Your task to perform on an android device: What's the weather? Image 0: 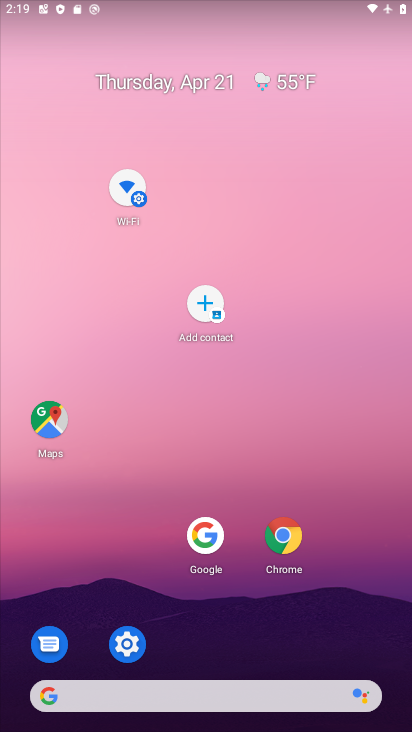
Step 0: drag from (216, 403) to (187, 61)
Your task to perform on an android device: What's the weather? Image 1: 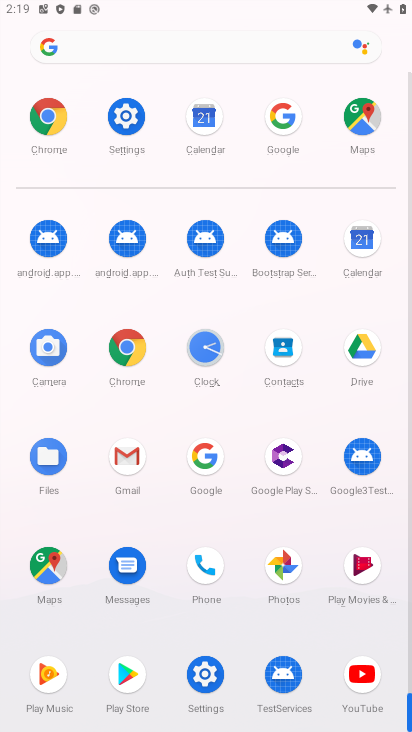
Step 1: press home button
Your task to perform on an android device: What's the weather? Image 2: 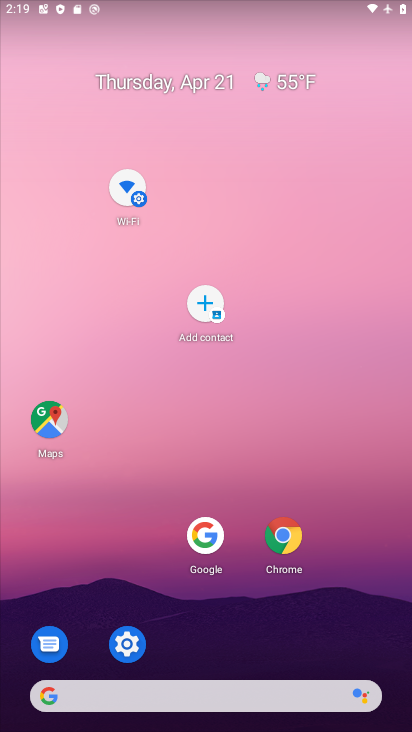
Step 2: drag from (1, 248) to (306, 377)
Your task to perform on an android device: What's the weather? Image 3: 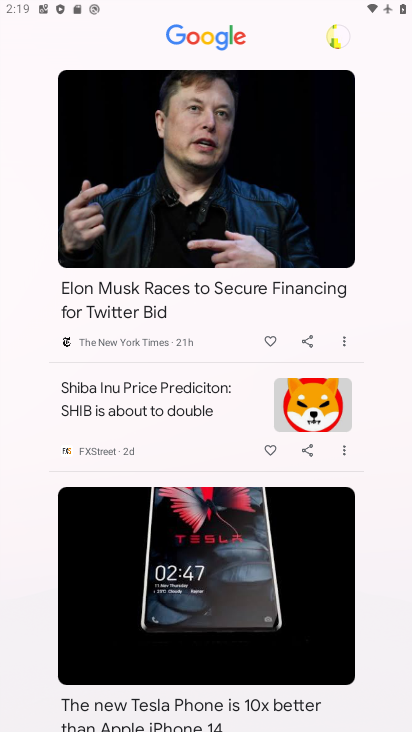
Step 3: drag from (251, 131) to (215, 558)
Your task to perform on an android device: What's the weather? Image 4: 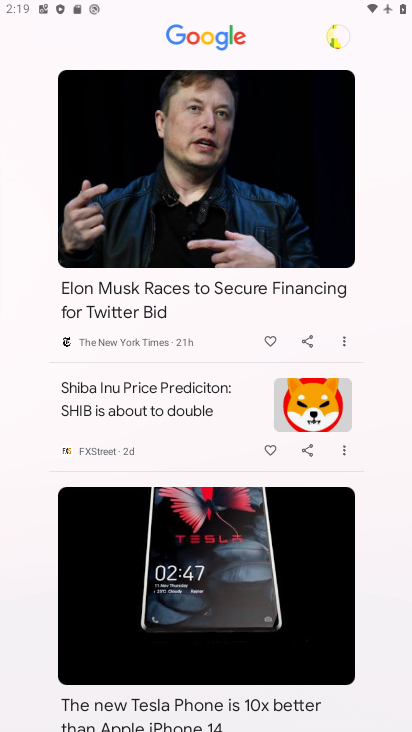
Step 4: drag from (153, 386) to (146, 492)
Your task to perform on an android device: What's the weather? Image 5: 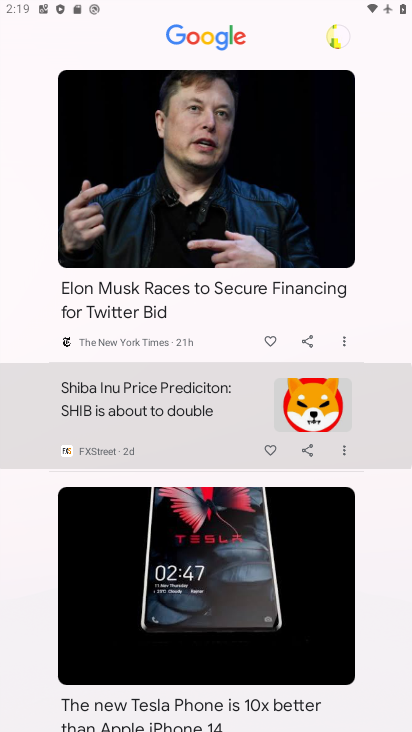
Step 5: drag from (166, 351) to (167, 504)
Your task to perform on an android device: What's the weather? Image 6: 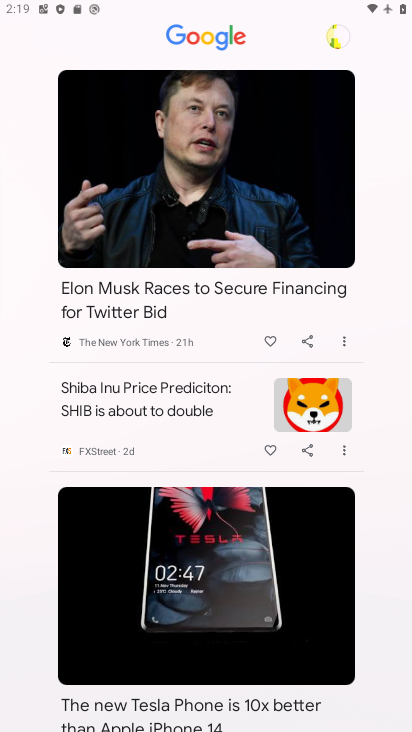
Step 6: drag from (169, 198) to (183, 584)
Your task to perform on an android device: What's the weather? Image 7: 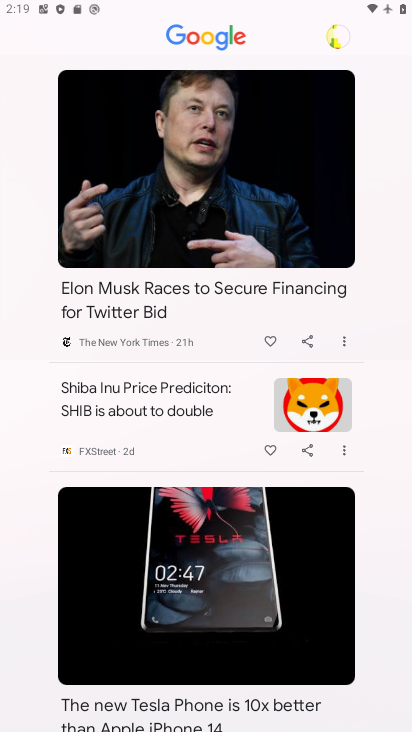
Step 7: drag from (153, 231) to (259, 608)
Your task to perform on an android device: What's the weather? Image 8: 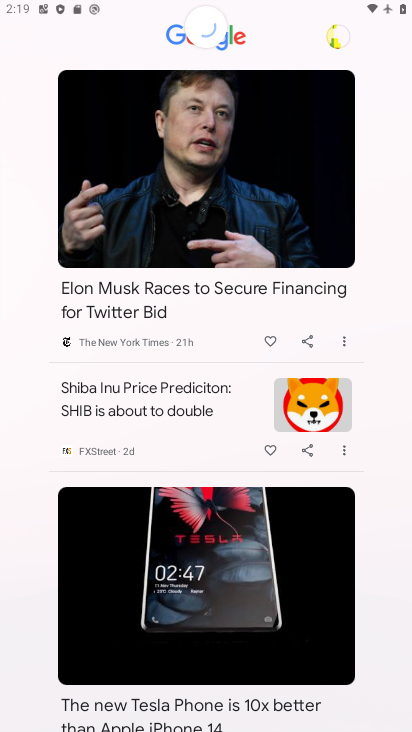
Step 8: drag from (253, 242) to (201, 670)
Your task to perform on an android device: What's the weather? Image 9: 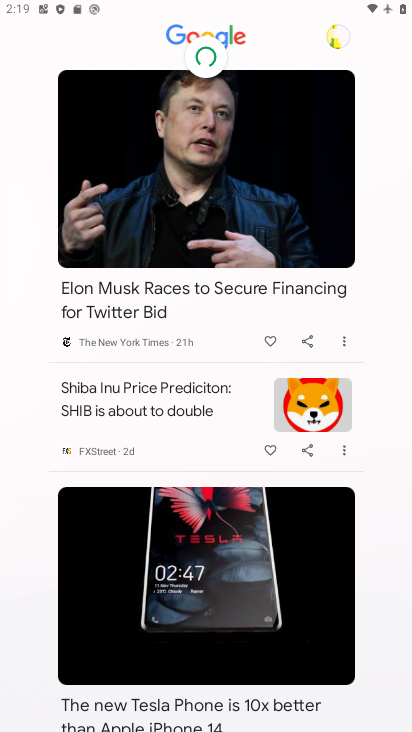
Step 9: drag from (124, 228) to (279, 522)
Your task to perform on an android device: What's the weather? Image 10: 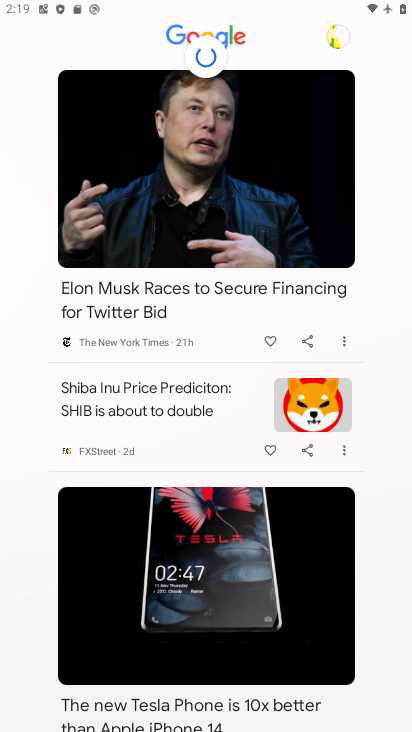
Step 10: click (260, 517)
Your task to perform on an android device: What's the weather? Image 11: 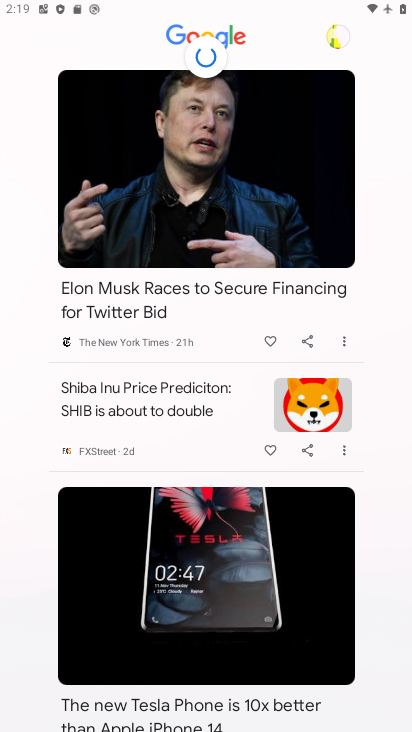
Step 11: click (292, 729)
Your task to perform on an android device: What's the weather? Image 12: 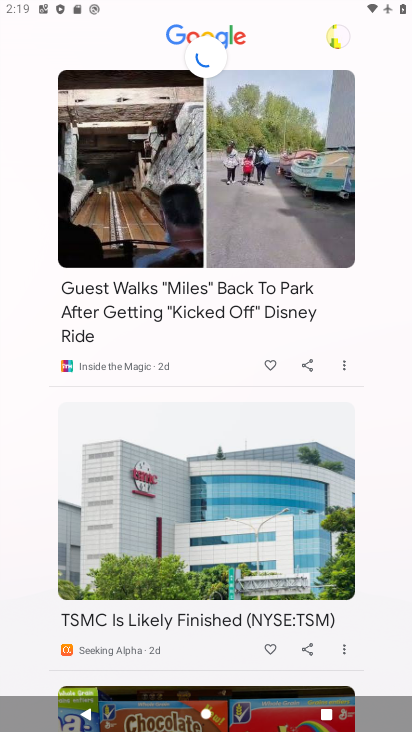
Step 12: drag from (249, 489) to (344, 581)
Your task to perform on an android device: What's the weather? Image 13: 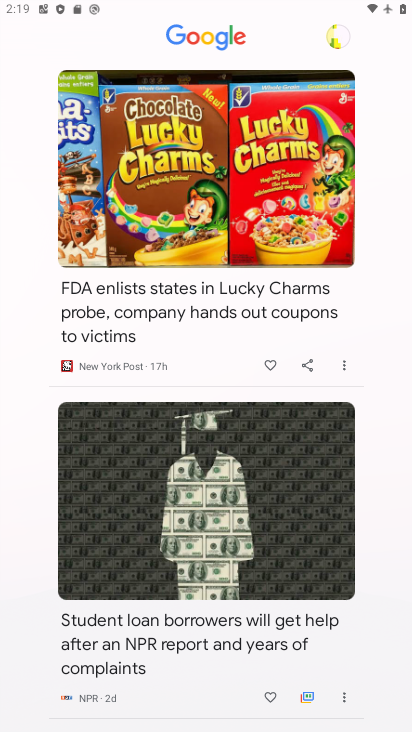
Step 13: drag from (179, 277) to (244, 473)
Your task to perform on an android device: What's the weather? Image 14: 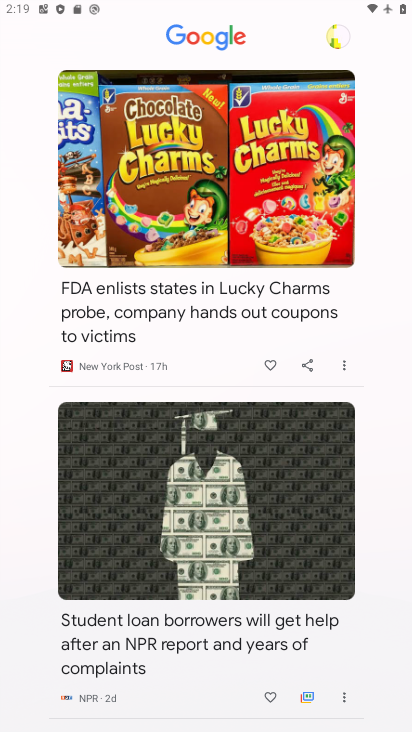
Step 14: drag from (148, 150) to (259, 557)
Your task to perform on an android device: What's the weather? Image 15: 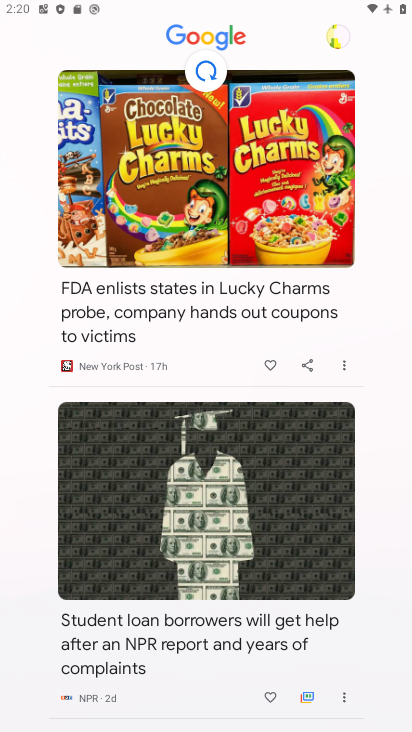
Step 15: drag from (280, 665) to (250, 562)
Your task to perform on an android device: What's the weather? Image 16: 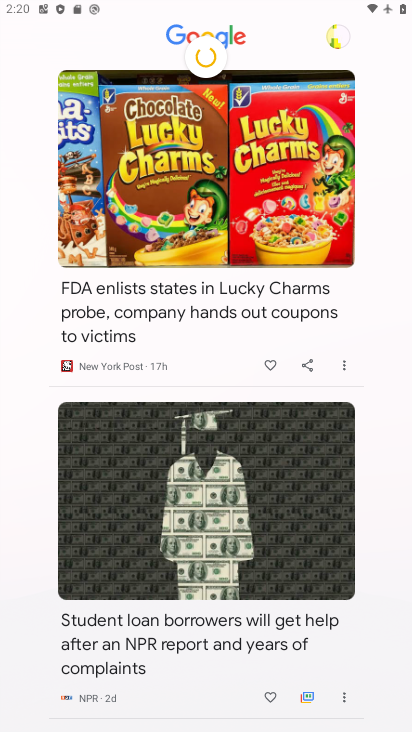
Step 16: drag from (244, 146) to (303, 426)
Your task to perform on an android device: What's the weather? Image 17: 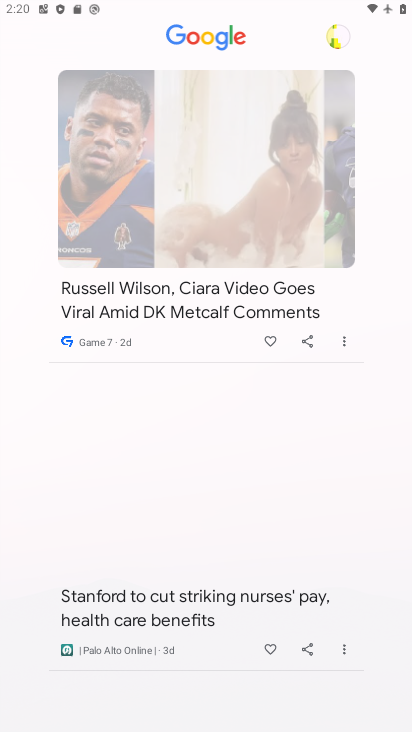
Step 17: drag from (207, 293) to (248, 492)
Your task to perform on an android device: What's the weather? Image 18: 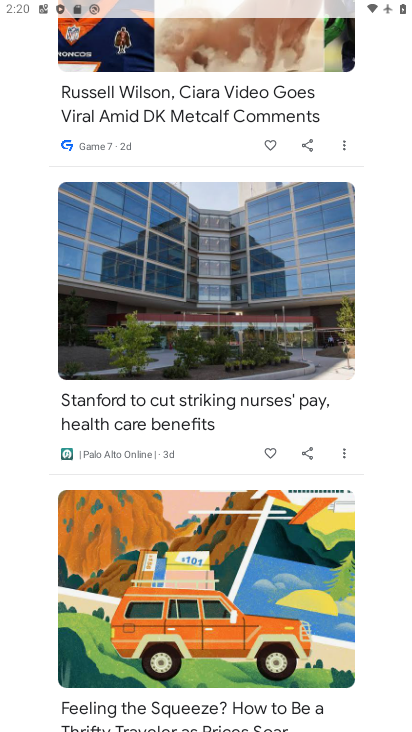
Step 18: drag from (212, 157) to (275, 502)
Your task to perform on an android device: What's the weather? Image 19: 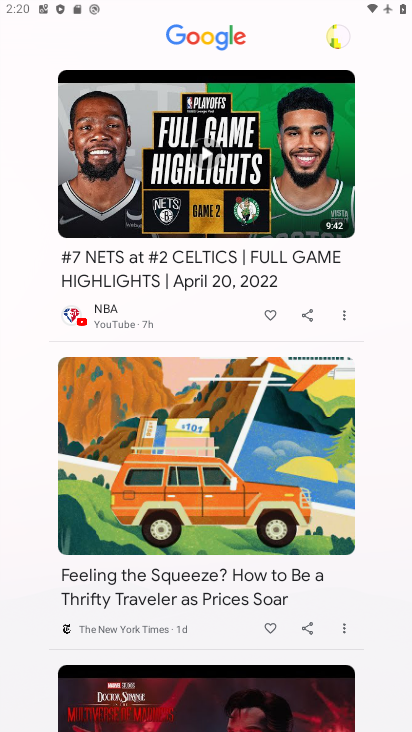
Step 19: press home button
Your task to perform on an android device: What's the weather? Image 20: 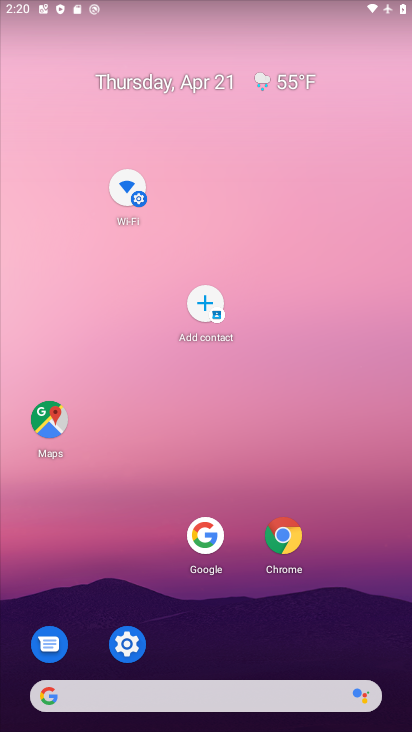
Step 20: click (266, 83)
Your task to perform on an android device: What's the weather? Image 21: 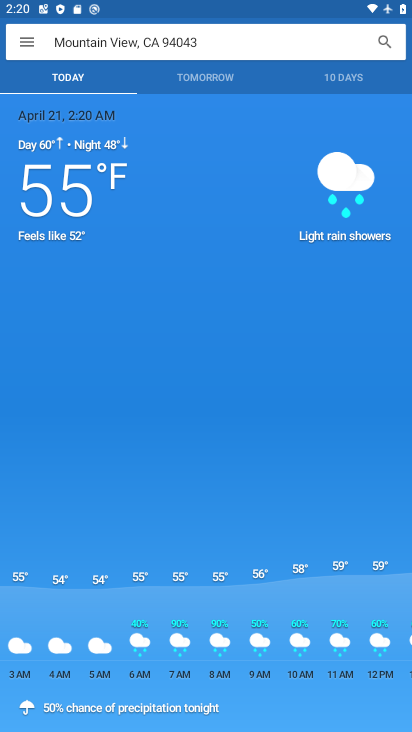
Step 21: task complete